Your task to perform on an android device: open sync settings in chrome Image 0: 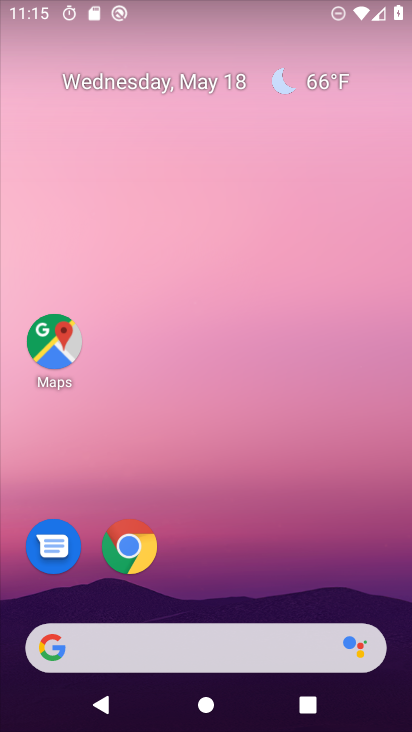
Step 0: click (132, 541)
Your task to perform on an android device: open sync settings in chrome Image 1: 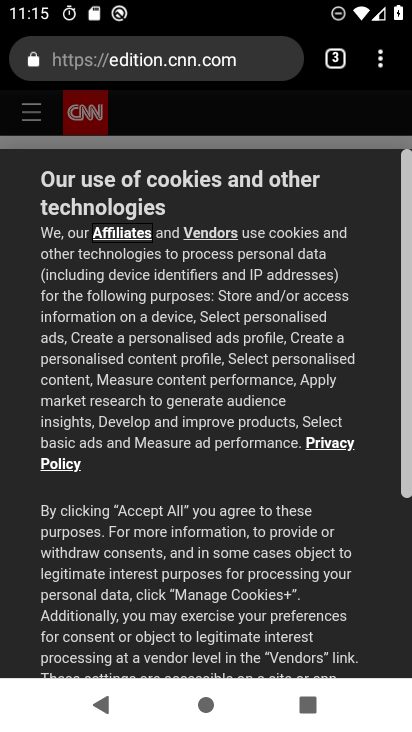
Step 1: click (393, 51)
Your task to perform on an android device: open sync settings in chrome Image 2: 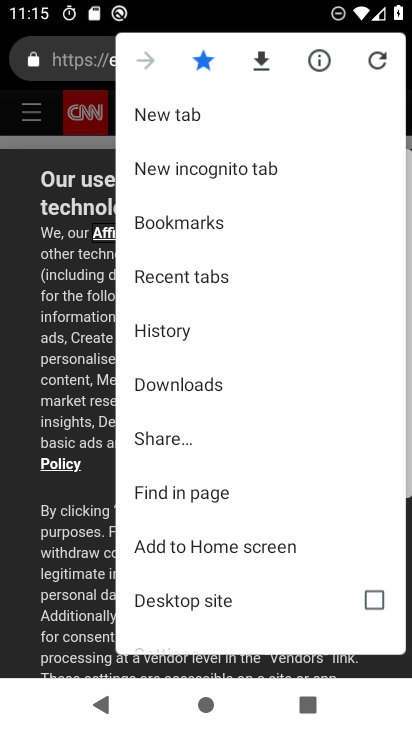
Step 2: drag from (215, 583) to (226, 254)
Your task to perform on an android device: open sync settings in chrome Image 3: 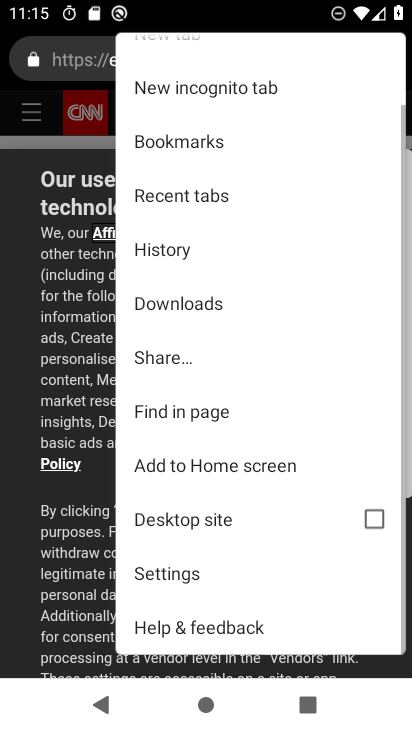
Step 3: click (202, 580)
Your task to perform on an android device: open sync settings in chrome Image 4: 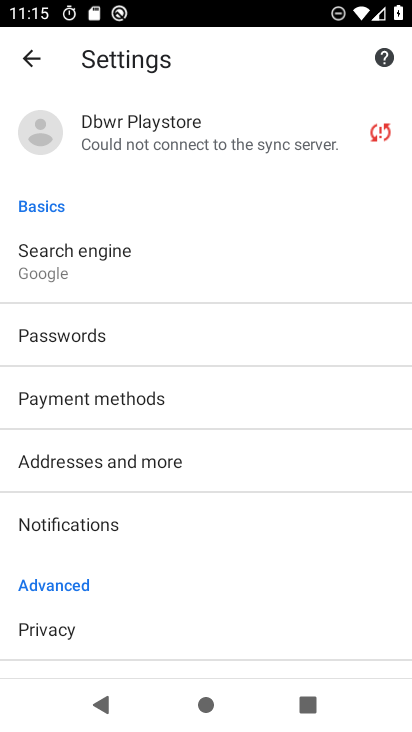
Step 4: drag from (202, 580) to (257, 268)
Your task to perform on an android device: open sync settings in chrome Image 5: 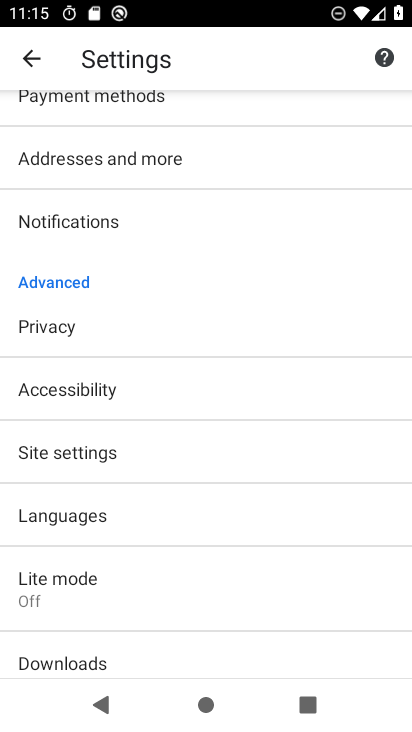
Step 5: drag from (174, 149) to (105, 701)
Your task to perform on an android device: open sync settings in chrome Image 6: 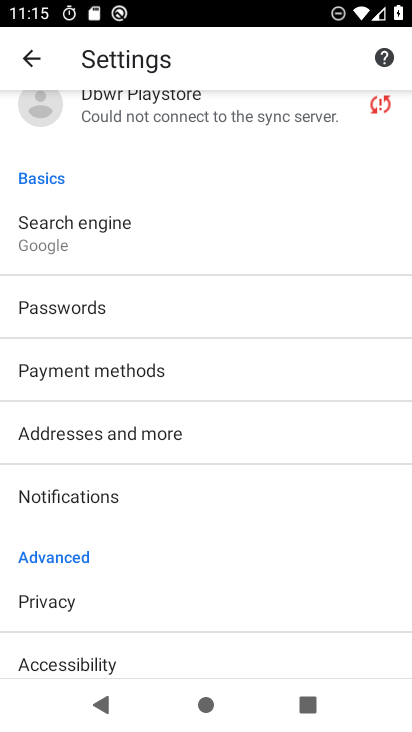
Step 6: click (150, 121)
Your task to perform on an android device: open sync settings in chrome Image 7: 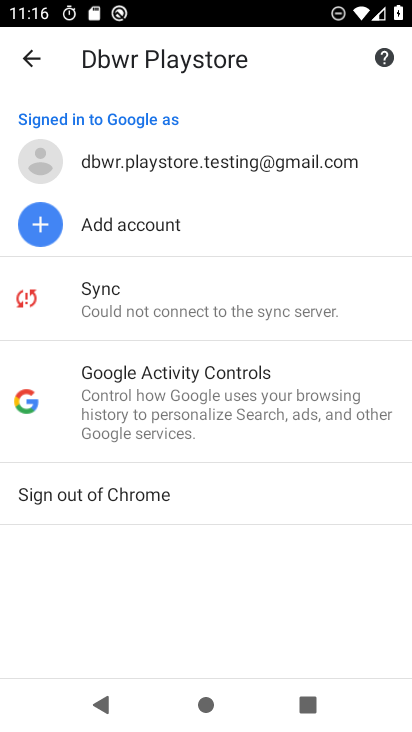
Step 7: click (150, 121)
Your task to perform on an android device: open sync settings in chrome Image 8: 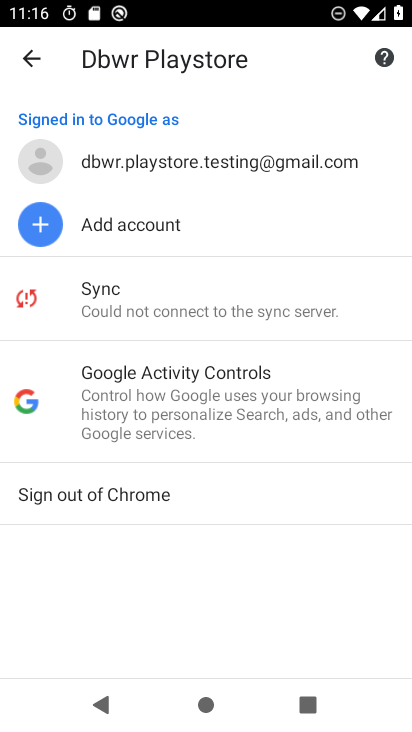
Step 8: click (96, 284)
Your task to perform on an android device: open sync settings in chrome Image 9: 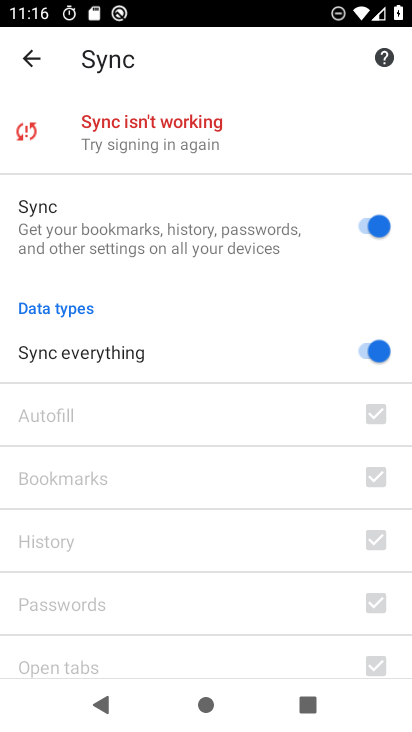
Step 9: task complete